Your task to perform on an android device: Open the web browser Image 0: 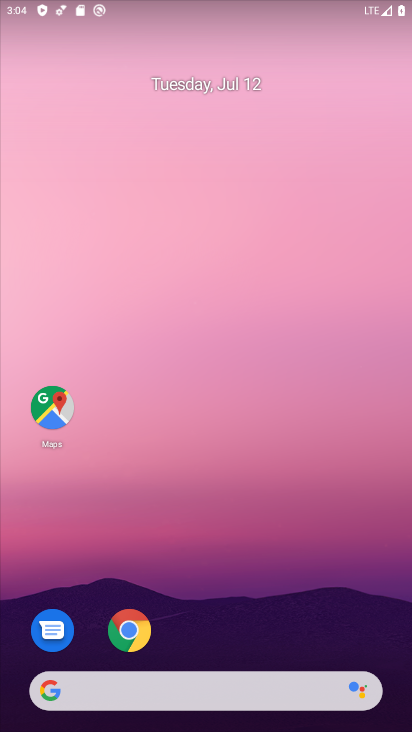
Step 0: drag from (262, 644) to (178, 19)
Your task to perform on an android device: Open the web browser Image 1: 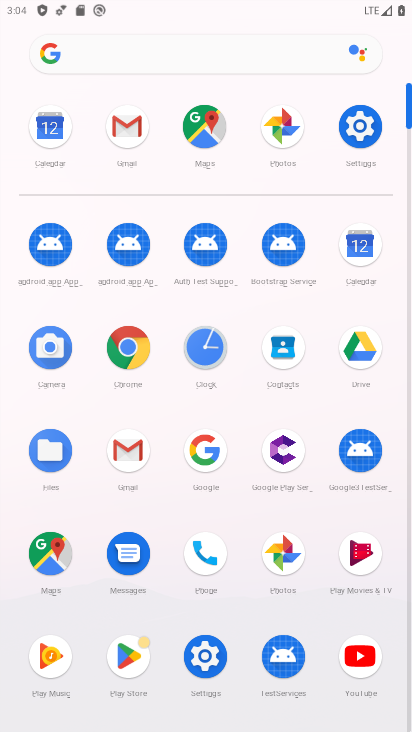
Step 1: click (135, 357)
Your task to perform on an android device: Open the web browser Image 2: 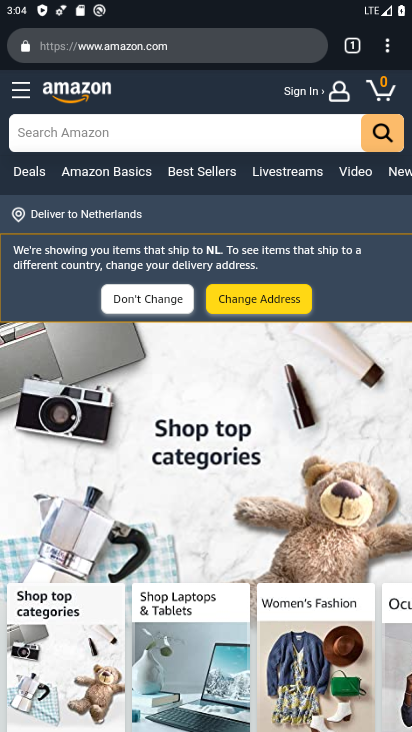
Step 2: task complete